Your task to perform on an android device: What's on my calendar tomorrow? Image 0: 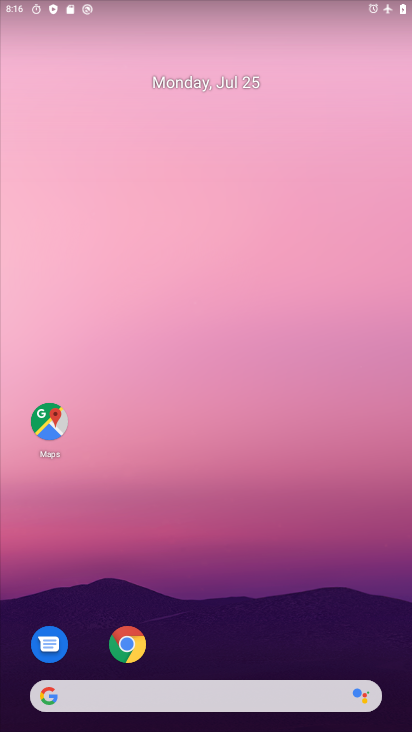
Step 0: drag from (177, 594) to (153, 66)
Your task to perform on an android device: What's on my calendar tomorrow? Image 1: 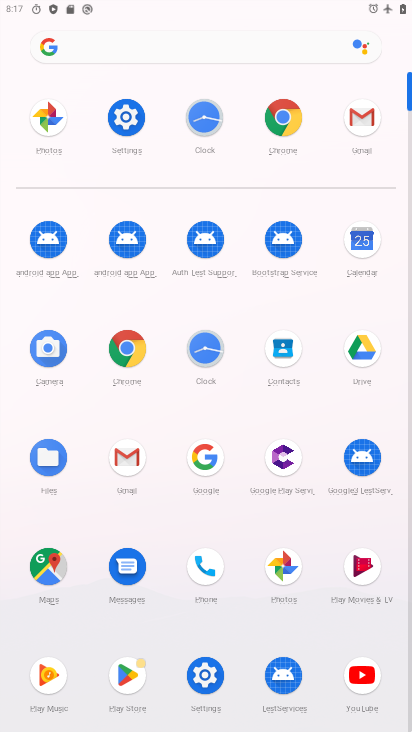
Step 1: click (357, 264)
Your task to perform on an android device: What's on my calendar tomorrow? Image 2: 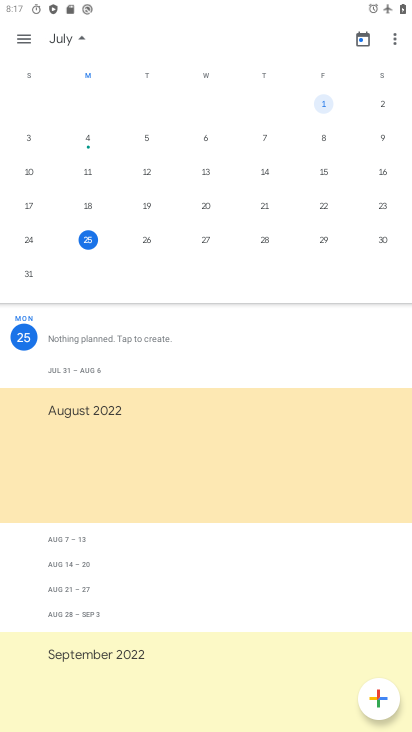
Step 2: click (149, 244)
Your task to perform on an android device: What's on my calendar tomorrow? Image 3: 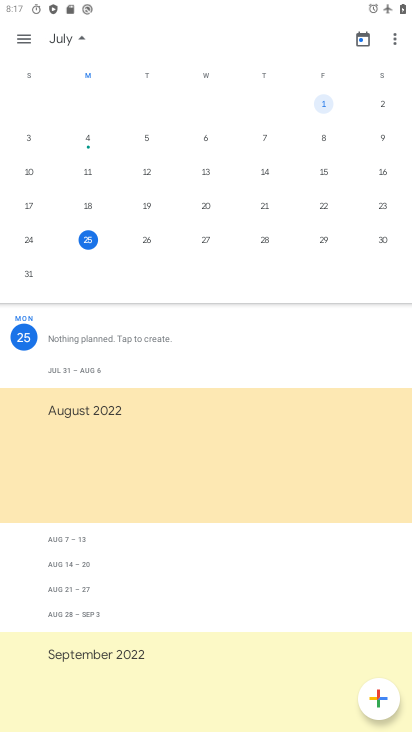
Step 3: click (149, 244)
Your task to perform on an android device: What's on my calendar tomorrow? Image 4: 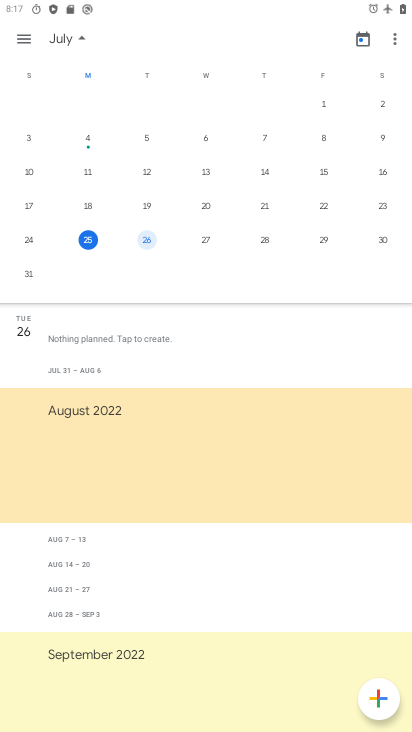
Step 4: task complete